Your task to perform on an android device: check android version Image 0: 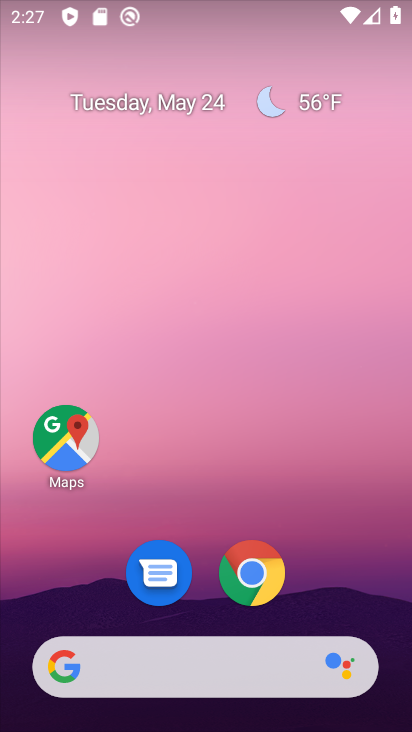
Step 0: drag from (316, 553) to (246, 37)
Your task to perform on an android device: check android version Image 1: 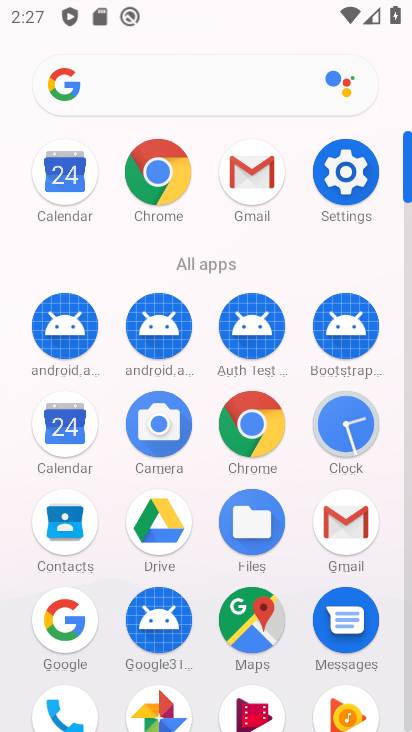
Step 1: drag from (22, 472) to (22, 289)
Your task to perform on an android device: check android version Image 2: 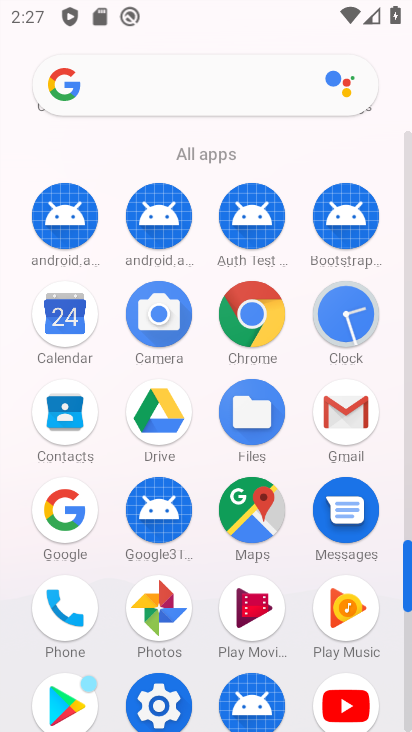
Step 2: click (162, 699)
Your task to perform on an android device: check android version Image 3: 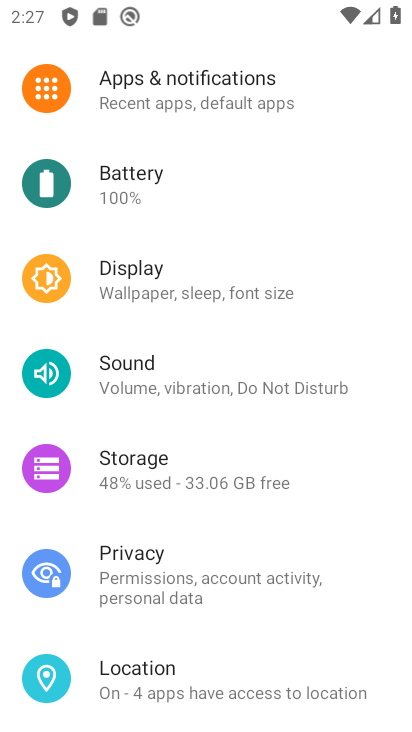
Step 3: drag from (289, 729) to (291, 184)
Your task to perform on an android device: check android version Image 4: 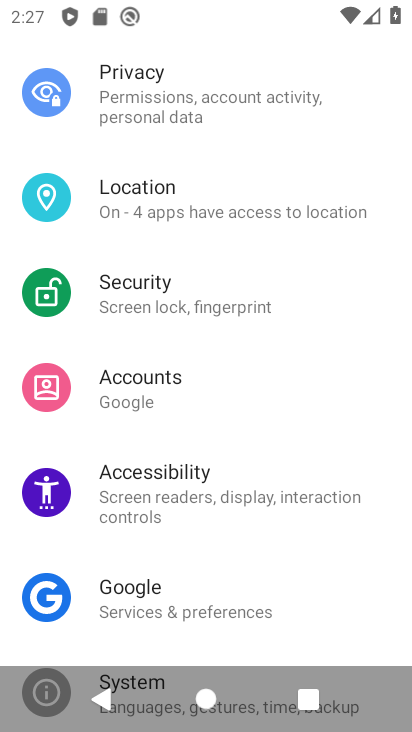
Step 4: drag from (207, 614) to (242, 193)
Your task to perform on an android device: check android version Image 5: 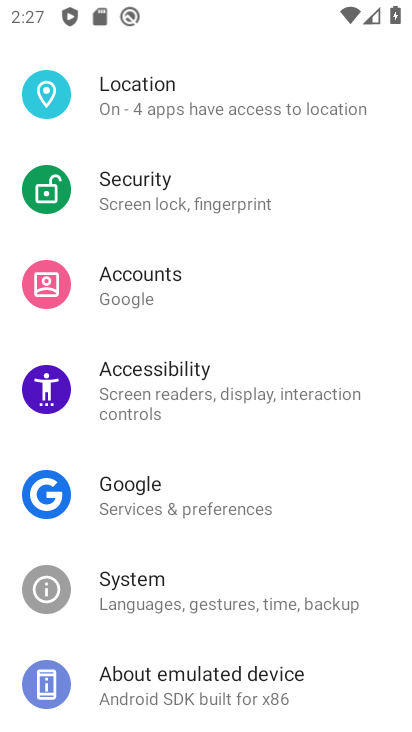
Step 5: click (174, 664)
Your task to perform on an android device: check android version Image 6: 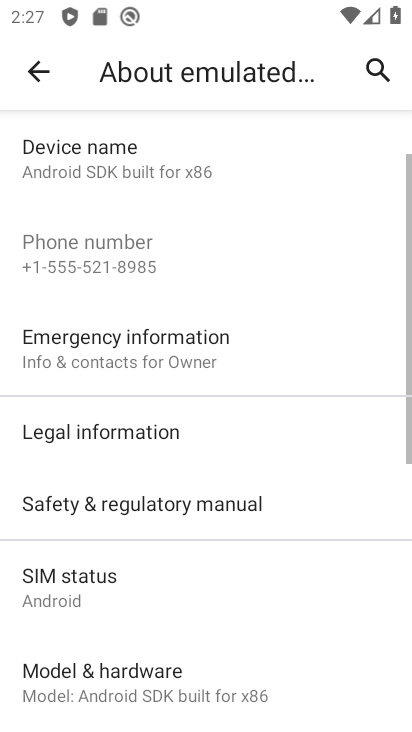
Step 6: task complete